Your task to perform on an android device: Open Google Chrome Image 0: 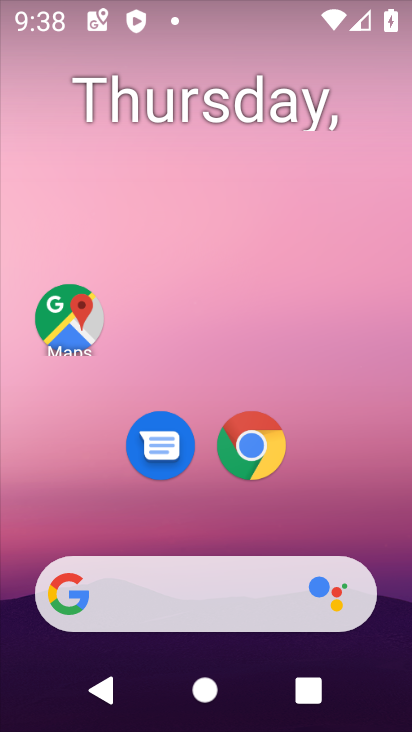
Step 0: drag from (230, 565) to (299, 169)
Your task to perform on an android device: Open Google Chrome Image 1: 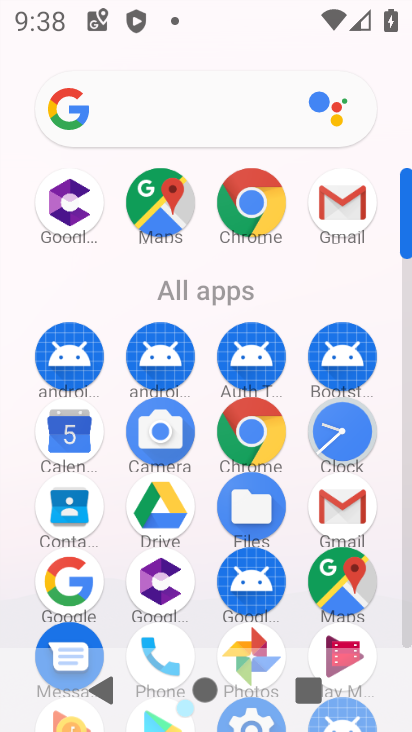
Step 1: click (234, 436)
Your task to perform on an android device: Open Google Chrome Image 2: 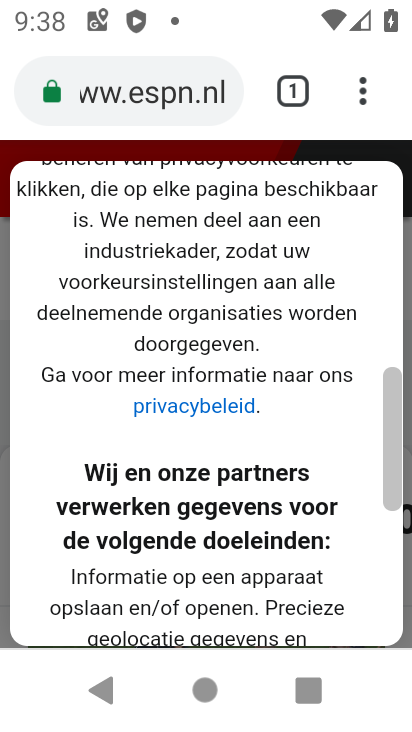
Step 2: click (361, 84)
Your task to perform on an android device: Open Google Chrome Image 3: 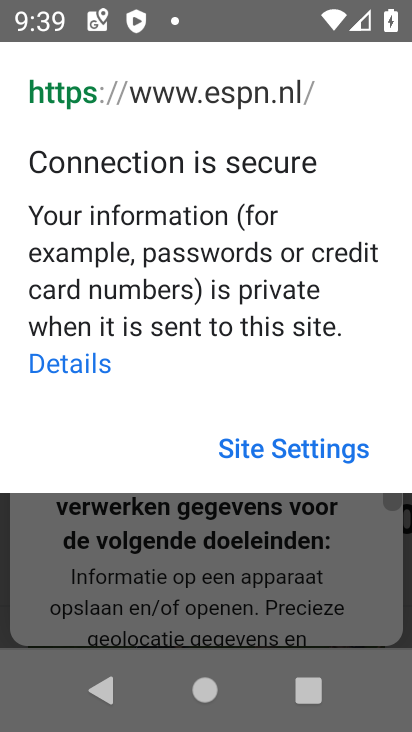
Step 3: click (24, 558)
Your task to perform on an android device: Open Google Chrome Image 4: 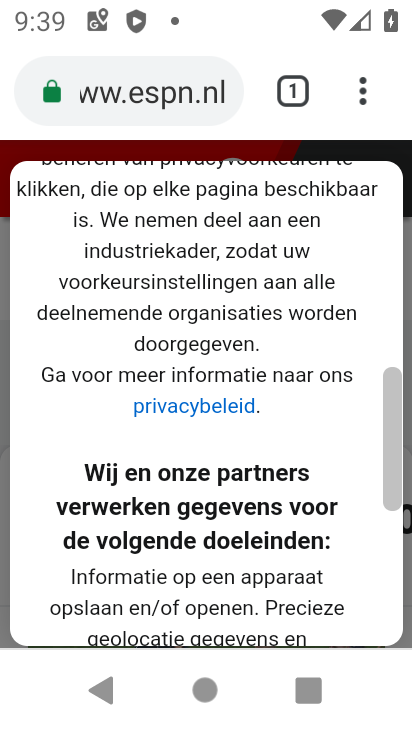
Step 4: task complete